Your task to perform on an android device: open a new tab in the chrome app Image 0: 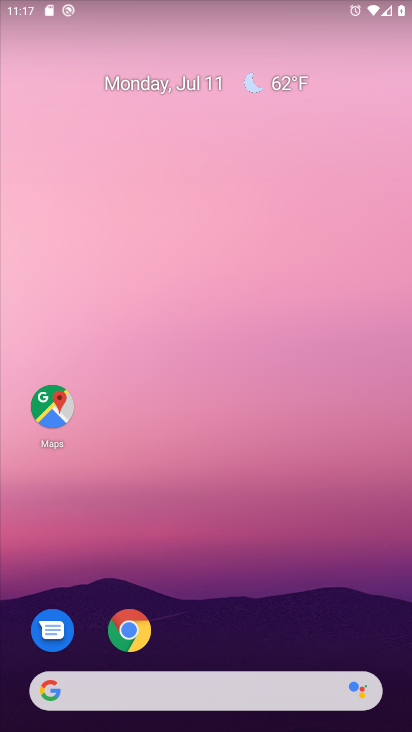
Step 0: click (132, 631)
Your task to perform on an android device: open a new tab in the chrome app Image 1: 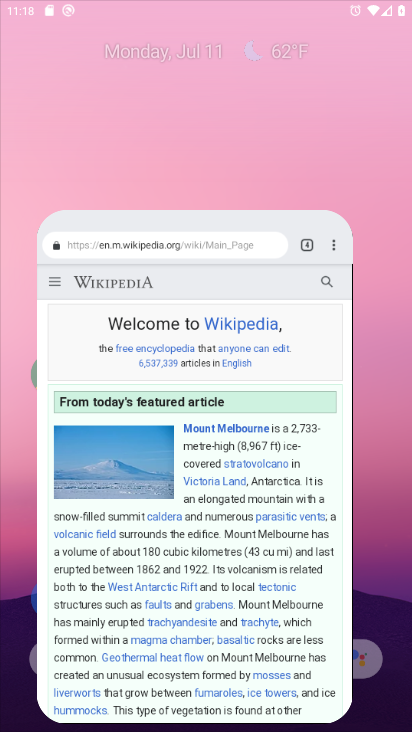
Step 1: click (131, 643)
Your task to perform on an android device: open a new tab in the chrome app Image 2: 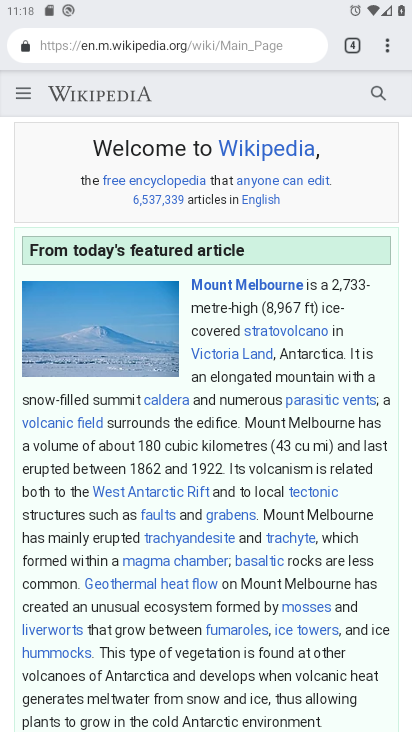
Step 2: click (389, 43)
Your task to perform on an android device: open a new tab in the chrome app Image 3: 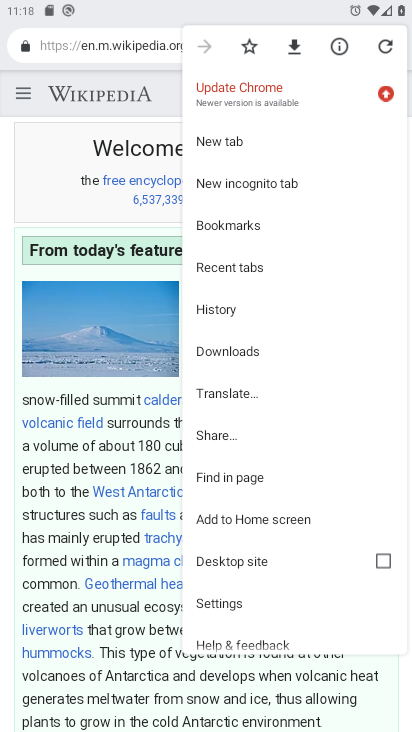
Step 3: click (263, 144)
Your task to perform on an android device: open a new tab in the chrome app Image 4: 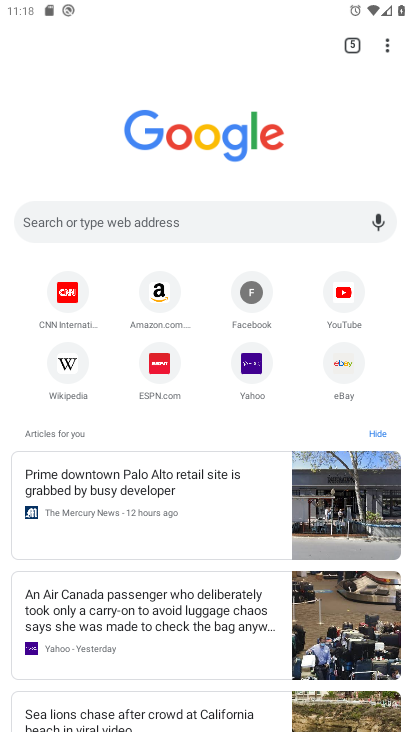
Step 4: task complete